Your task to perform on an android device: empty trash in google photos Image 0: 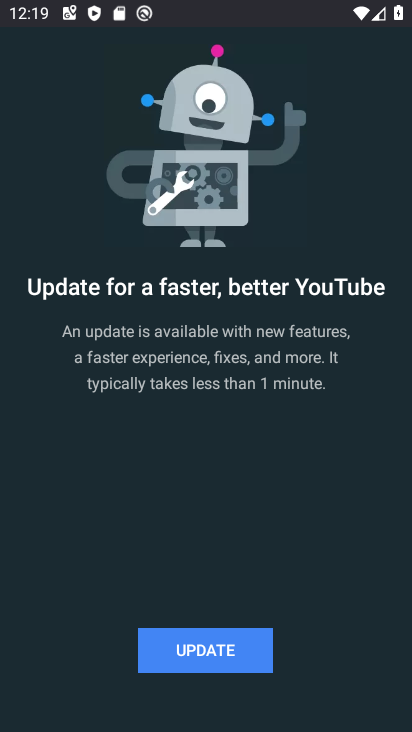
Step 0: press back button
Your task to perform on an android device: empty trash in google photos Image 1: 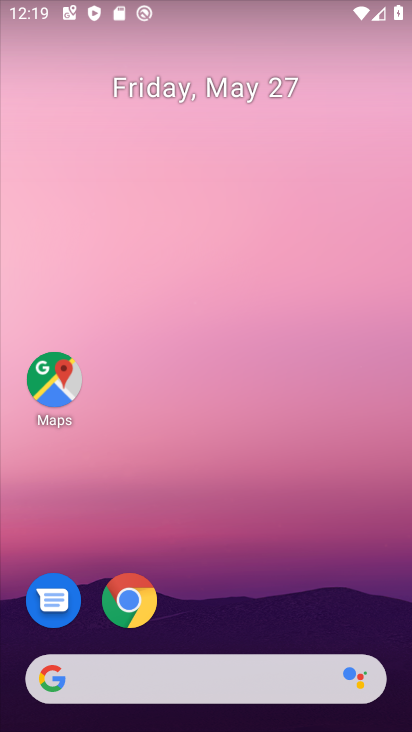
Step 1: drag from (311, 536) to (275, 85)
Your task to perform on an android device: empty trash in google photos Image 2: 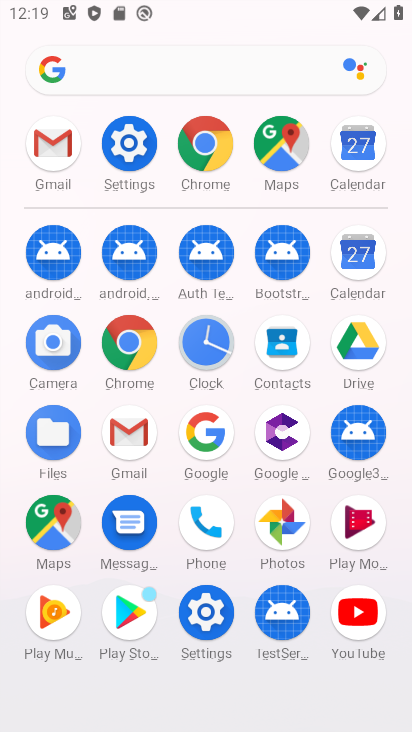
Step 2: click (284, 519)
Your task to perform on an android device: empty trash in google photos Image 3: 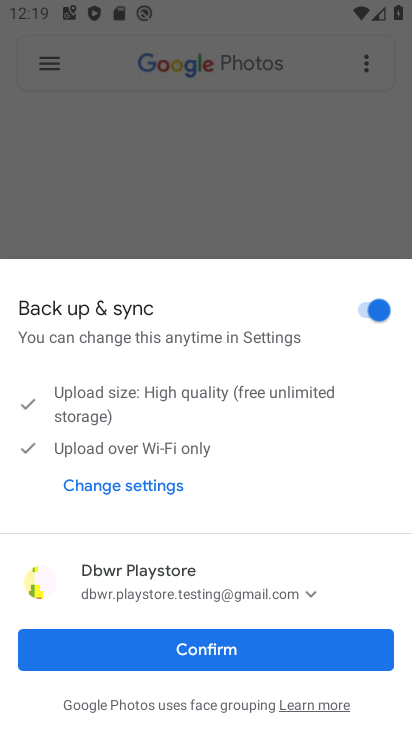
Step 3: click (272, 648)
Your task to perform on an android device: empty trash in google photos Image 4: 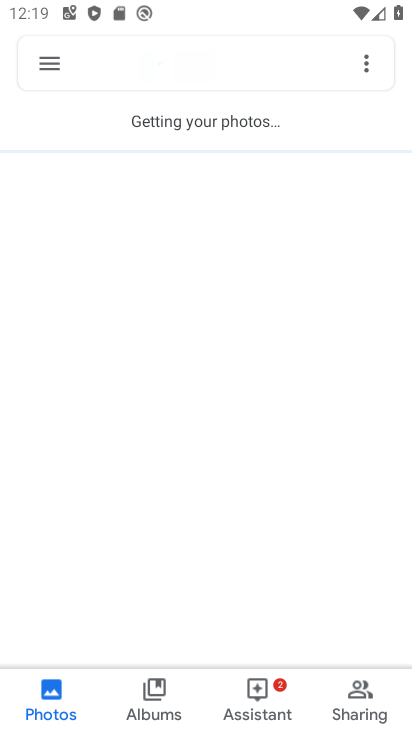
Step 4: click (47, 47)
Your task to perform on an android device: empty trash in google photos Image 5: 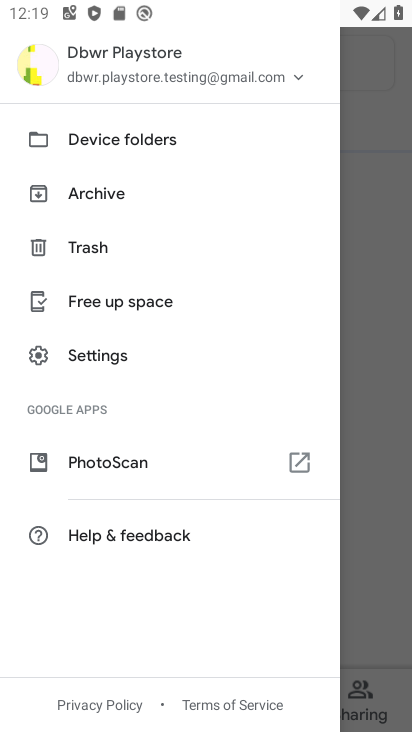
Step 5: click (114, 239)
Your task to perform on an android device: empty trash in google photos Image 6: 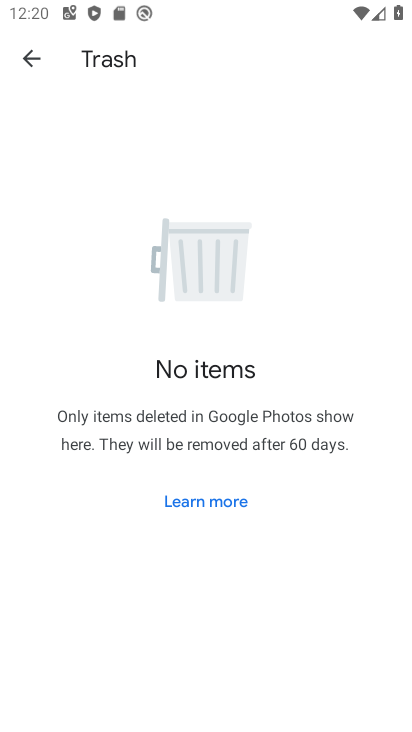
Step 6: task complete